Your task to perform on an android device: set an alarm Image 0: 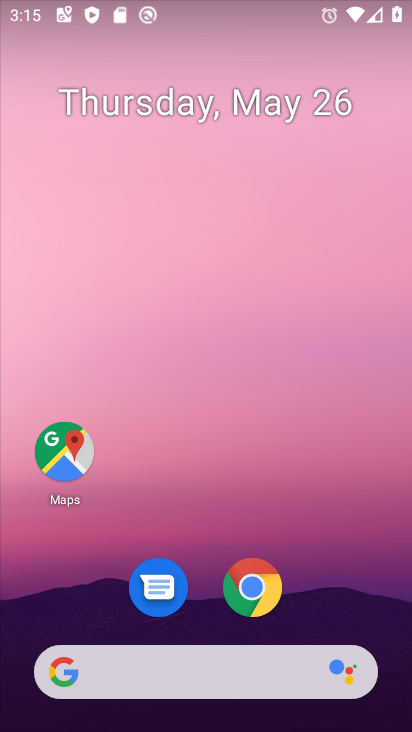
Step 0: drag from (365, 584) to (352, 173)
Your task to perform on an android device: set an alarm Image 1: 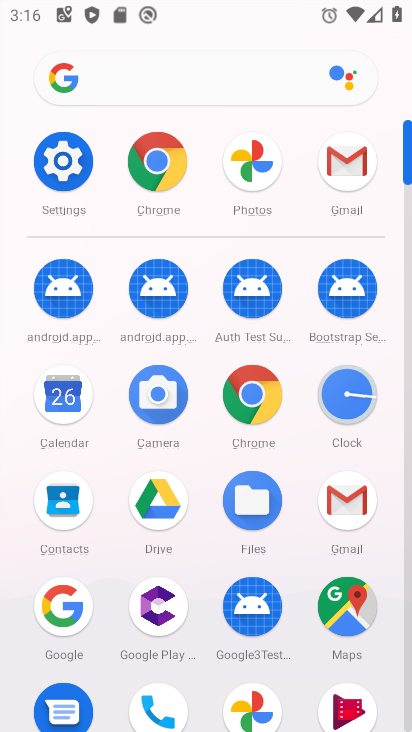
Step 1: click (343, 392)
Your task to perform on an android device: set an alarm Image 2: 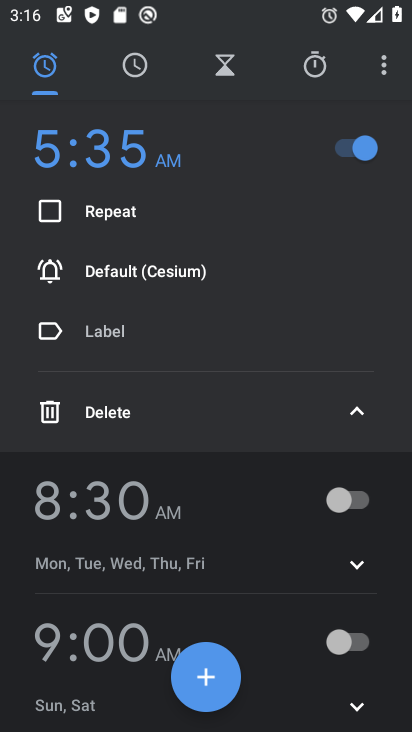
Step 2: click (217, 676)
Your task to perform on an android device: set an alarm Image 3: 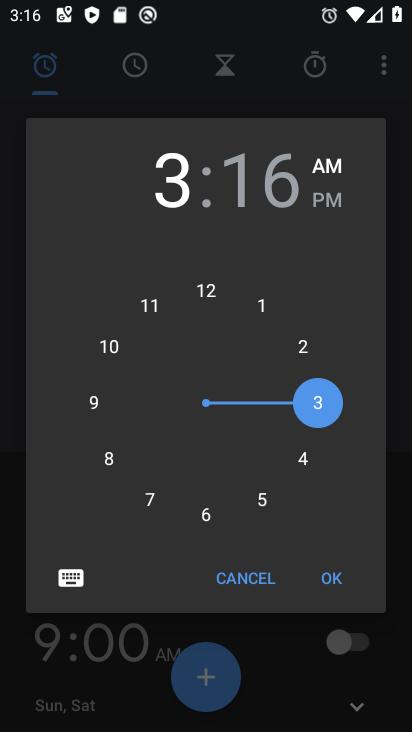
Step 3: click (260, 511)
Your task to perform on an android device: set an alarm Image 4: 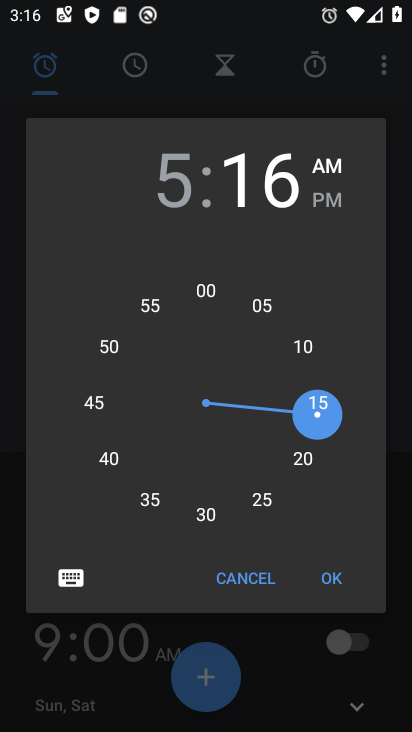
Step 4: click (329, 579)
Your task to perform on an android device: set an alarm Image 5: 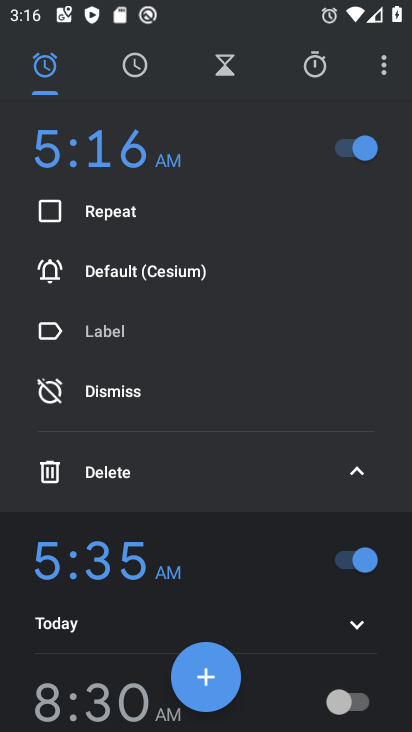
Step 5: task complete